Your task to perform on an android device: Turn off the flashlight Image 0: 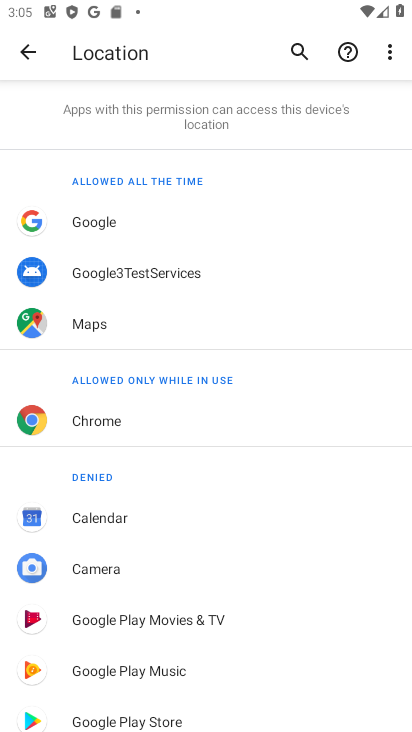
Step 0: press back button
Your task to perform on an android device: Turn off the flashlight Image 1: 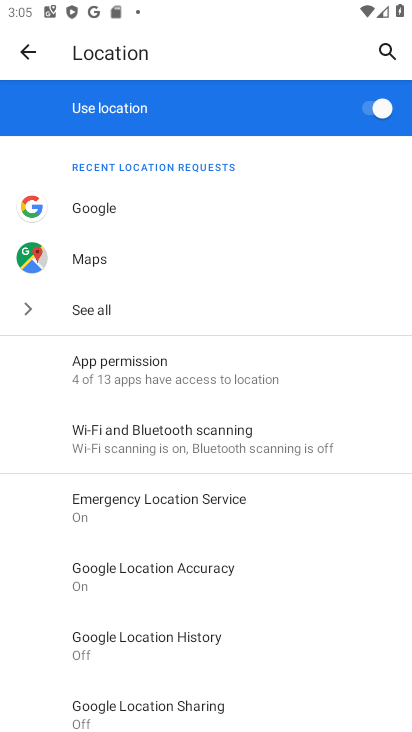
Step 1: task complete